Your task to perform on an android device: Go to Reddit.com Image 0: 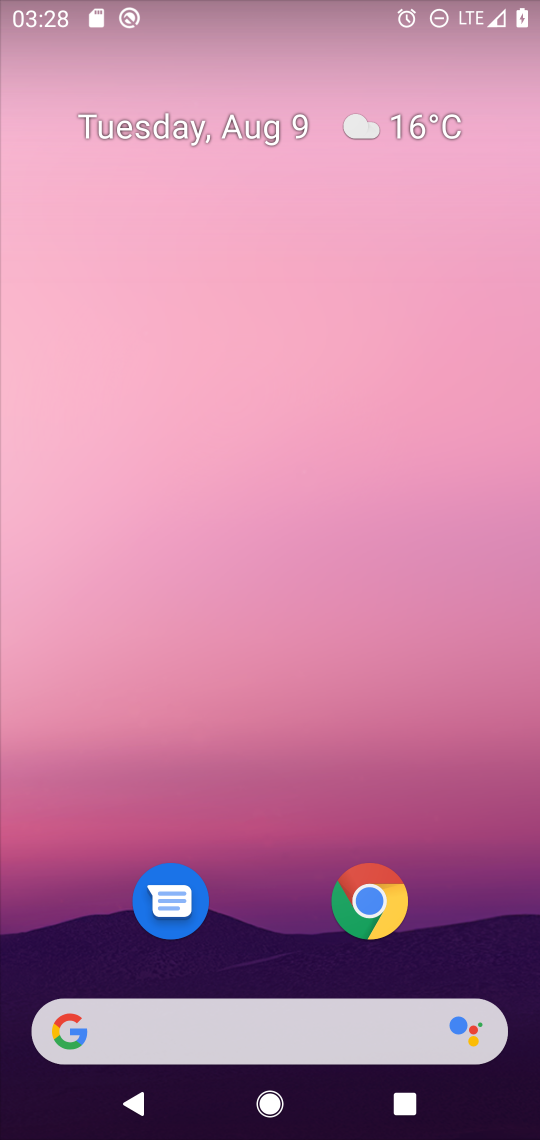
Step 0: click (366, 908)
Your task to perform on an android device: Go to Reddit.com Image 1: 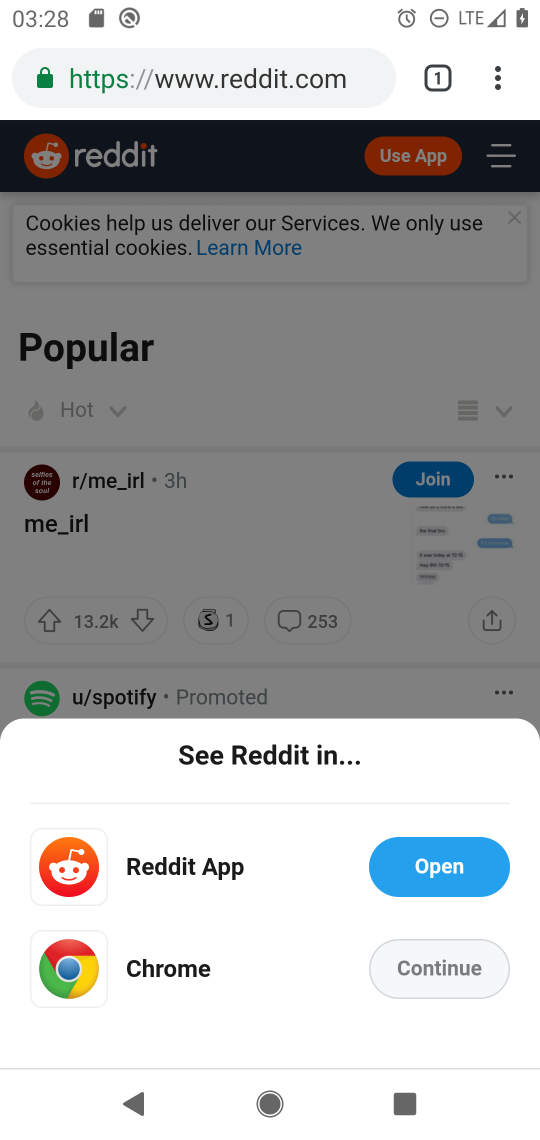
Step 1: task complete